Your task to perform on an android device: toggle priority inbox in the gmail app Image 0: 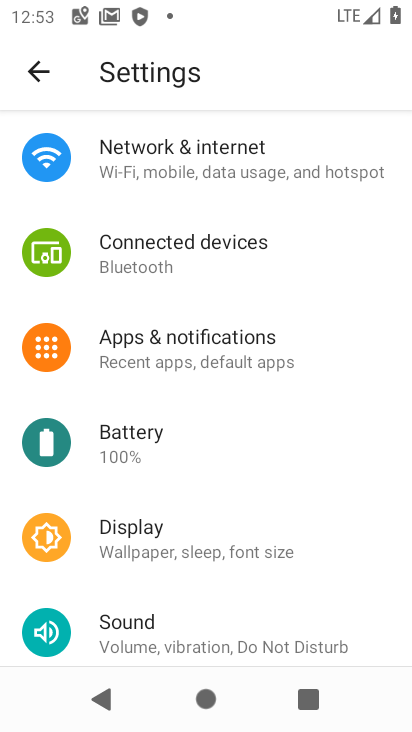
Step 0: press home button
Your task to perform on an android device: toggle priority inbox in the gmail app Image 1: 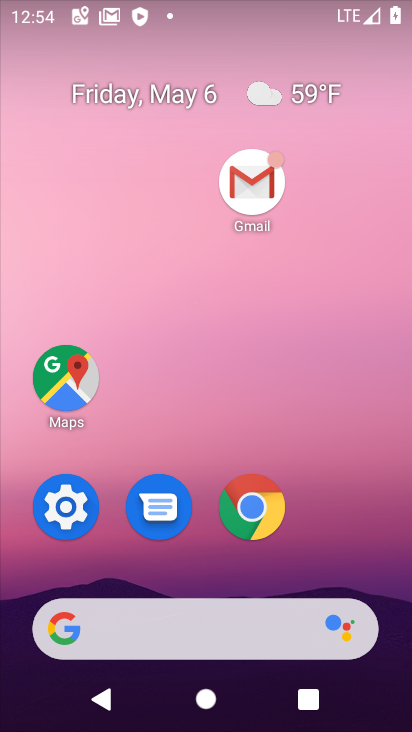
Step 1: click (246, 207)
Your task to perform on an android device: toggle priority inbox in the gmail app Image 2: 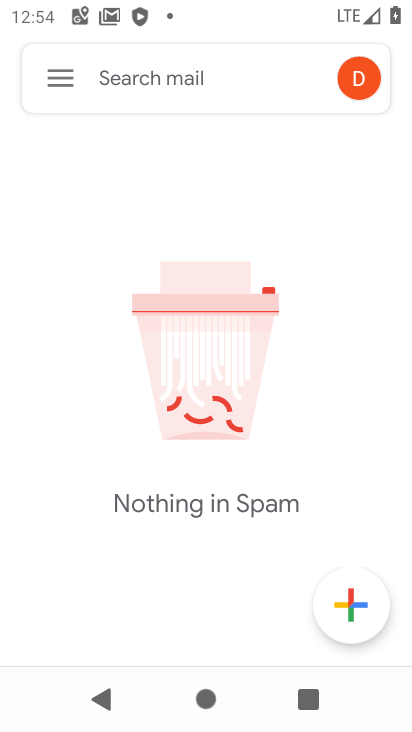
Step 2: click (53, 81)
Your task to perform on an android device: toggle priority inbox in the gmail app Image 3: 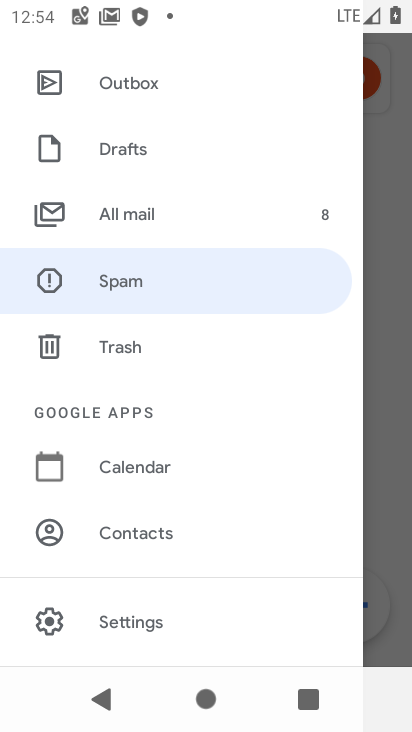
Step 3: click (143, 623)
Your task to perform on an android device: toggle priority inbox in the gmail app Image 4: 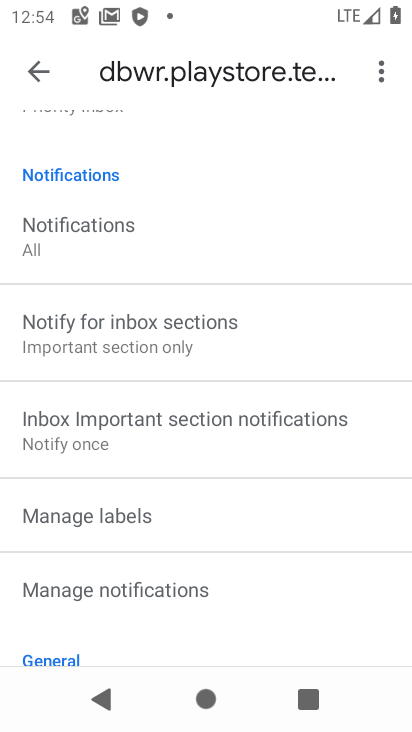
Step 4: drag from (253, 258) to (242, 712)
Your task to perform on an android device: toggle priority inbox in the gmail app Image 5: 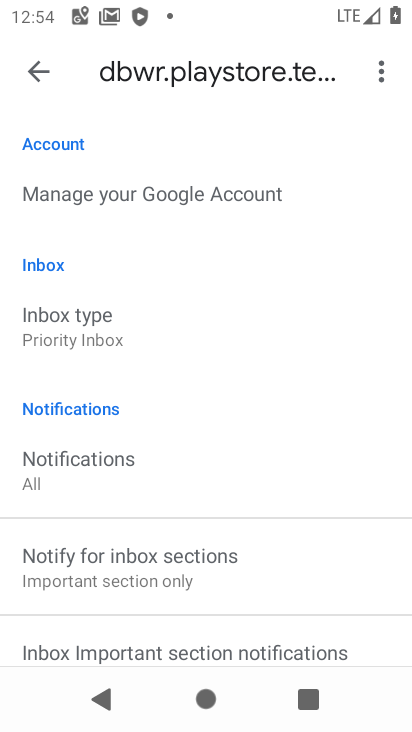
Step 5: click (77, 317)
Your task to perform on an android device: toggle priority inbox in the gmail app Image 6: 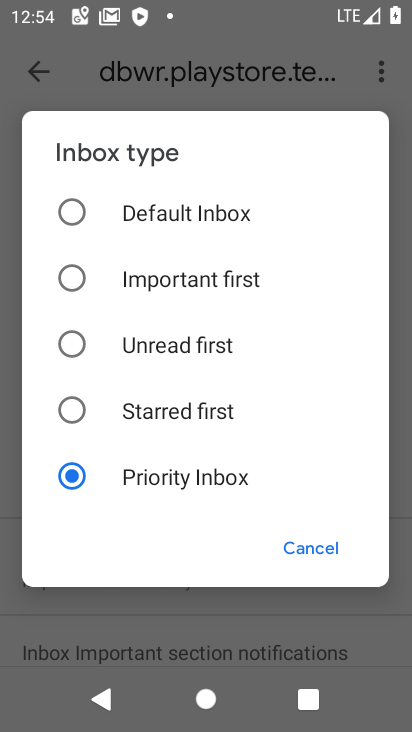
Step 6: click (77, 273)
Your task to perform on an android device: toggle priority inbox in the gmail app Image 7: 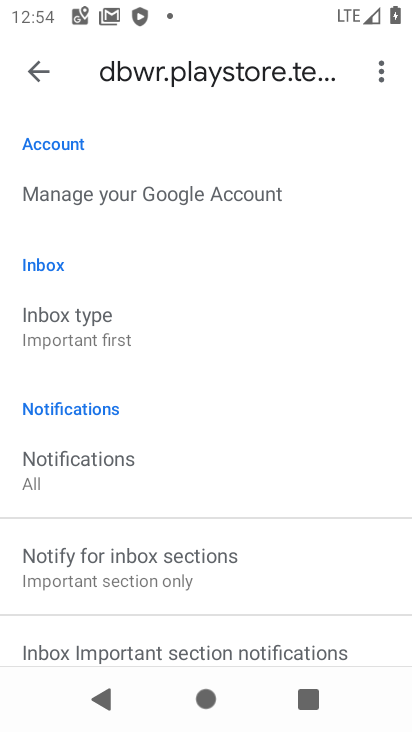
Step 7: task complete